Your task to perform on an android device: check storage Image 0: 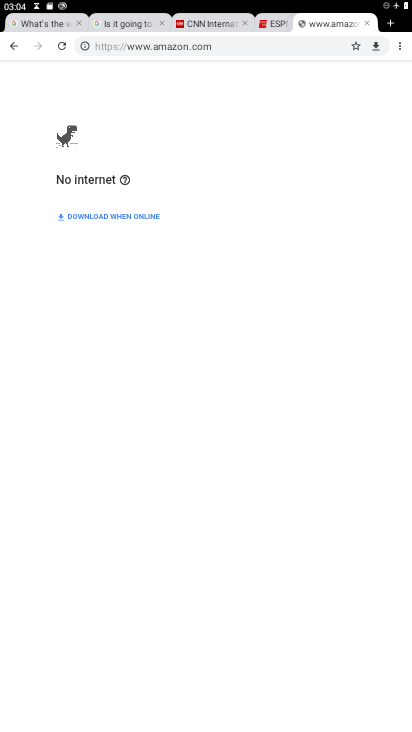
Step 0: press home button
Your task to perform on an android device: check storage Image 1: 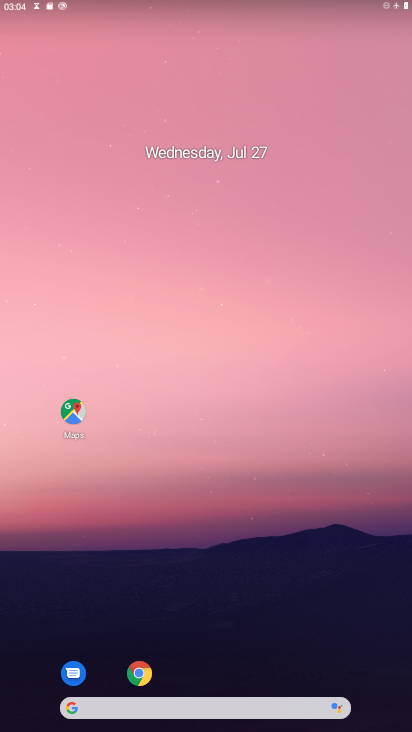
Step 1: drag from (156, 674) to (259, 219)
Your task to perform on an android device: check storage Image 2: 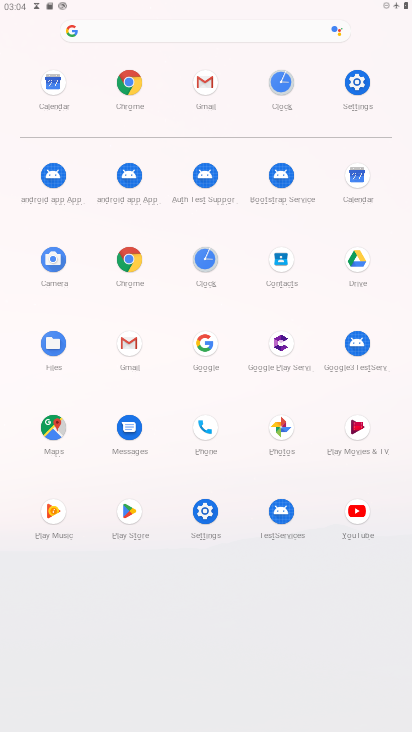
Step 2: click (356, 79)
Your task to perform on an android device: check storage Image 3: 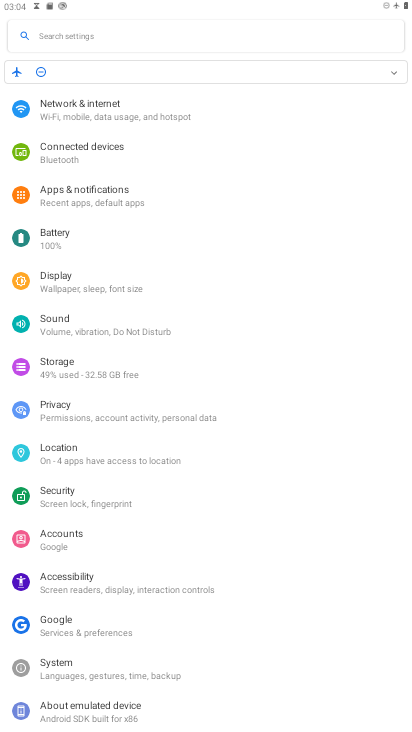
Step 3: click (87, 374)
Your task to perform on an android device: check storage Image 4: 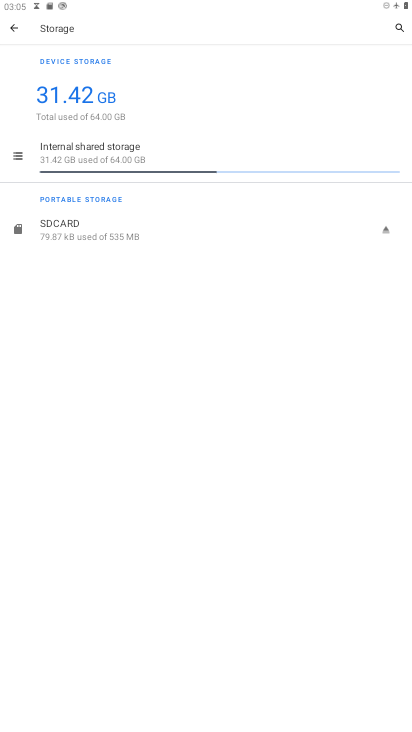
Step 4: task complete